Your task to perform on an android device: turn on wifi Image 0: 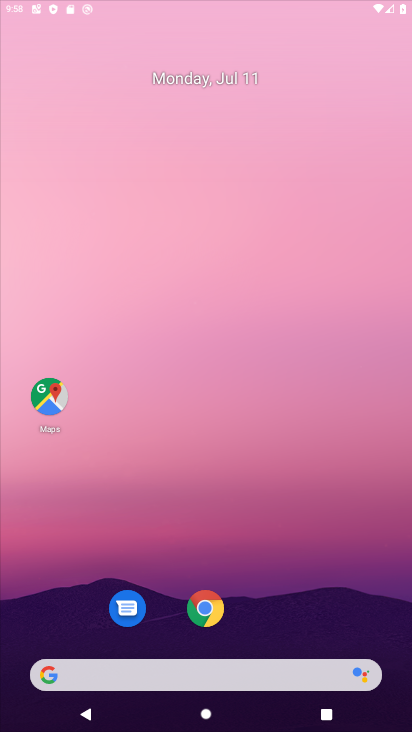
Step 0: click (184, 299)
Your task to perform on an android device: turn on wifi Image 1: 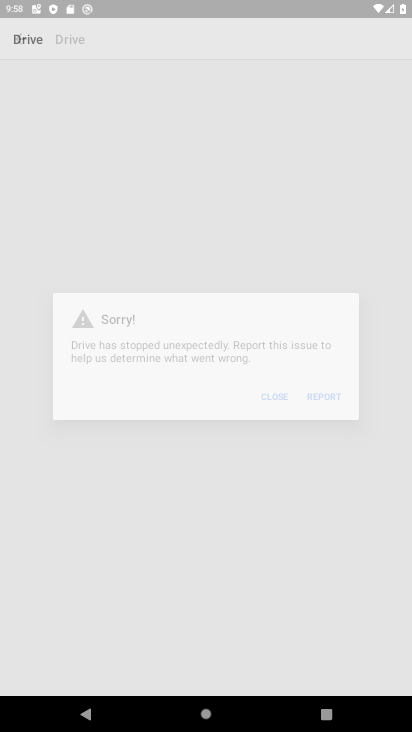
Step 1: drag from (51, 660) to (271, 77)
Your task to perform on an android device: turn on wifi Image 2: 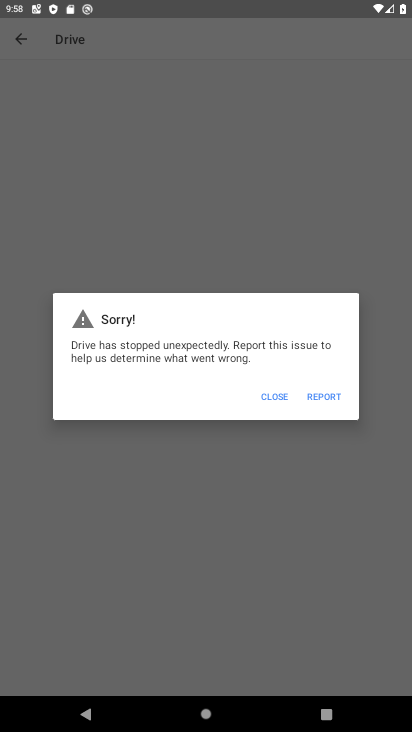
Step 2: press home button
Your task to perform on an android device: turn on wifi Image 3: 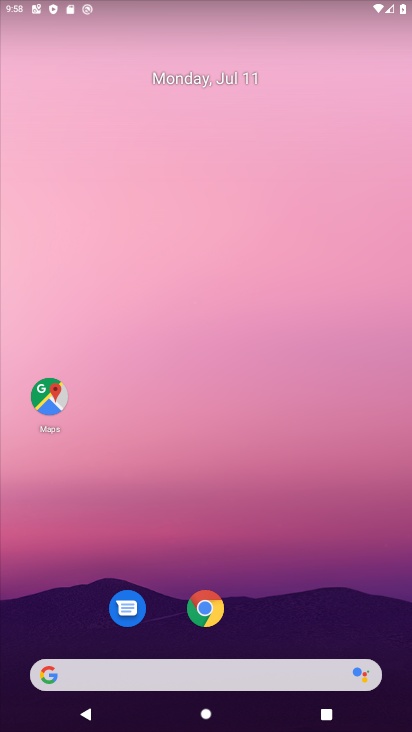
Step 3: drag from (28, 714) to (388, 220)
Your task to perform on an android device: turn on wifi Image 4: 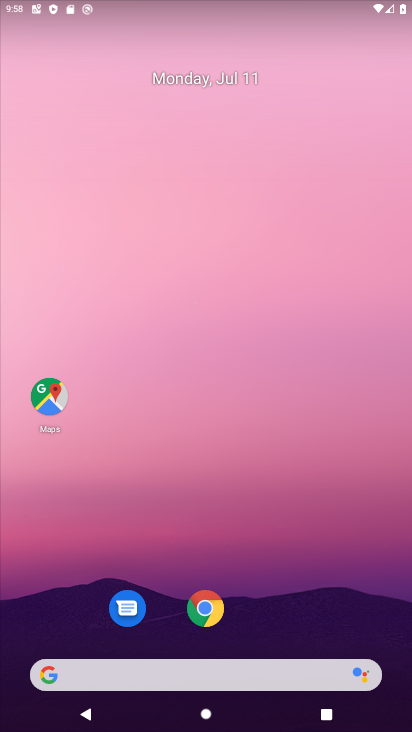
Step 4: drag from (28, 689) to (385, 19)
Your task to perform on an android device: turn on wifi Image 5: 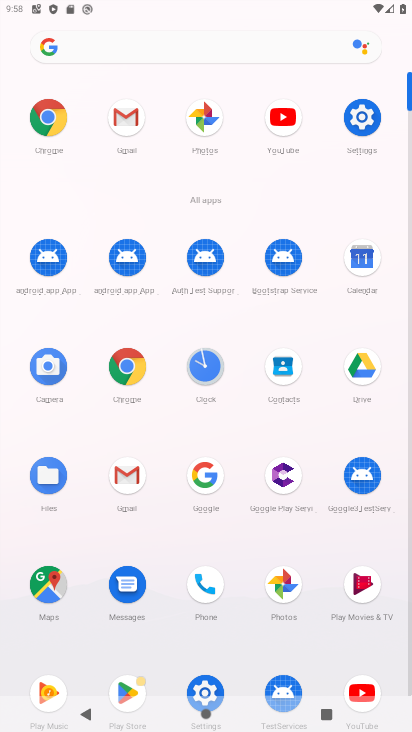
Step 5: click (201, 689)
Your task to perform on an android device: turn on wifi Image 6: 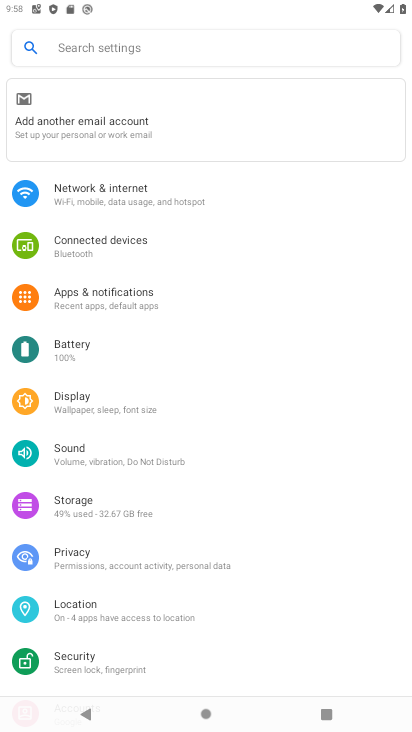
Step 6: click (102, 192)
Your task to perform on an android device: turn on wifi Image 7: 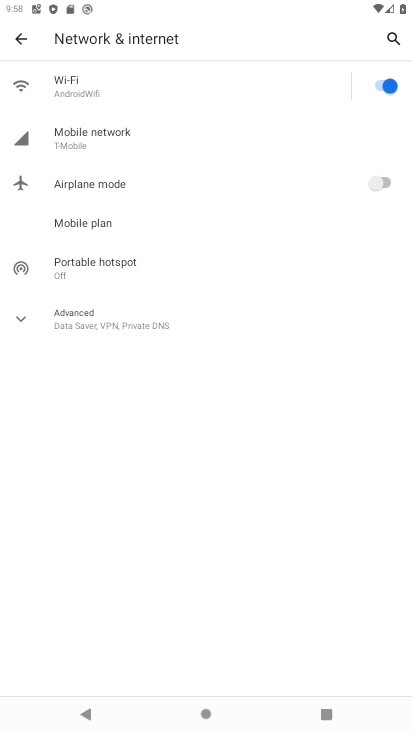
Step 7: task complete